Your task to perform on an android device: Set the phone to "Do not disturb". Image 0: 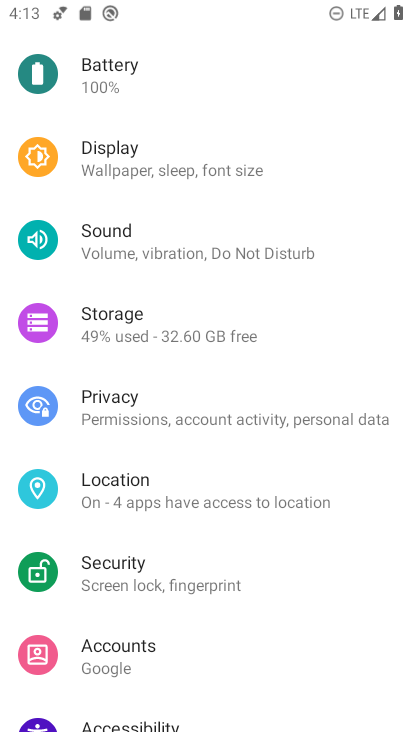
Step 0: click (124, 251)
Your task to perform on an android device: Set the phone to "Do not disturb". Image 1: 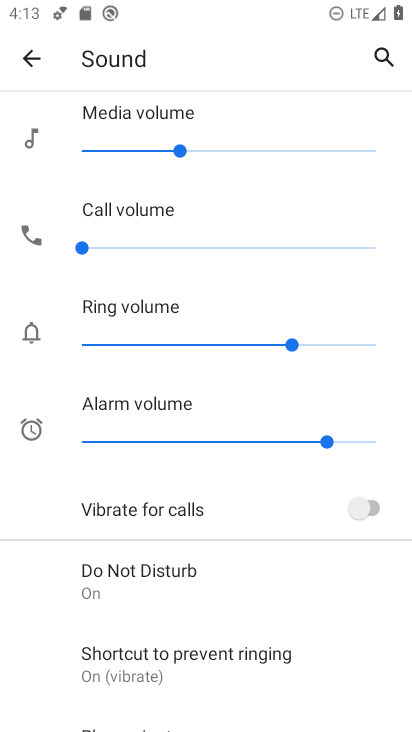
Step 1: click (120, 577)
Your task to perform on an android device: Set the phone to "Do not disturb". Image 2: 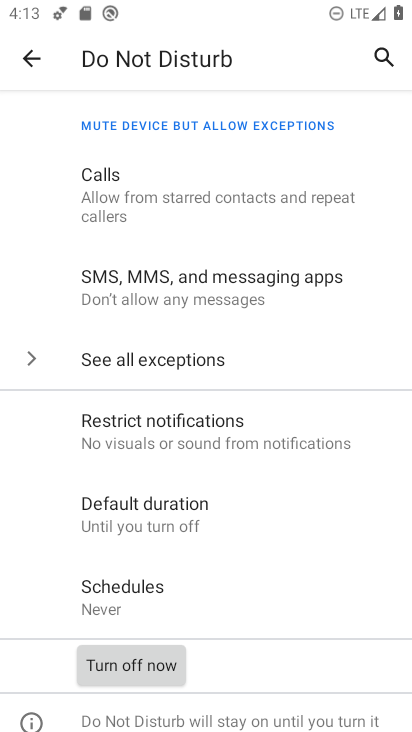
Step 2: task complete